Your task to perform on an android device: empty trash in google photos Image 0: 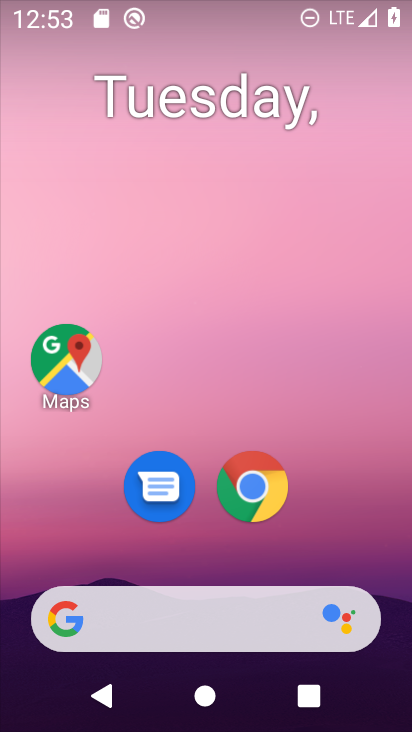
Step 0: drag from (208, 564) to (244, 186)
Your task to perform on an android device: empty trash in google photos Image 1: 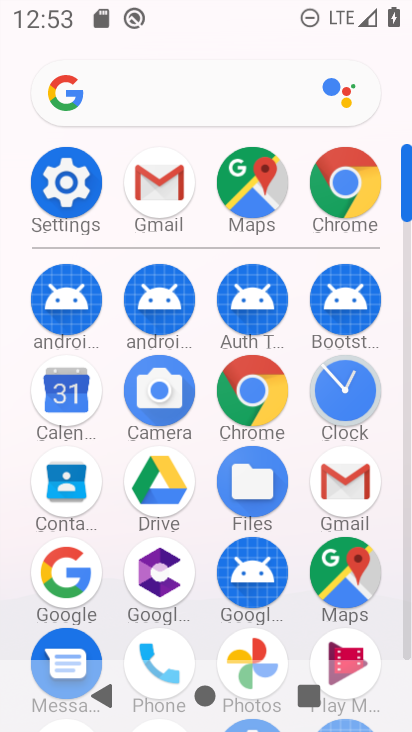
Step 1: drag from (217, 266) to (212, 105)
Your task to perform on an android device: empty trash in google photos Image 2: 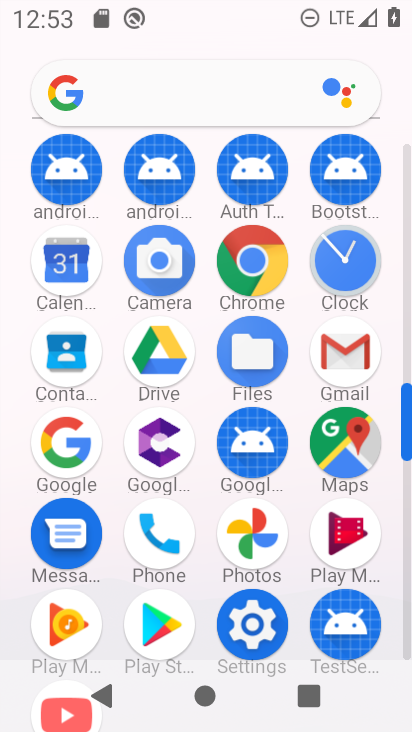
Step 2: click (256, 553)
Your task to perform on an android device: empty trash in google photos Image 3: 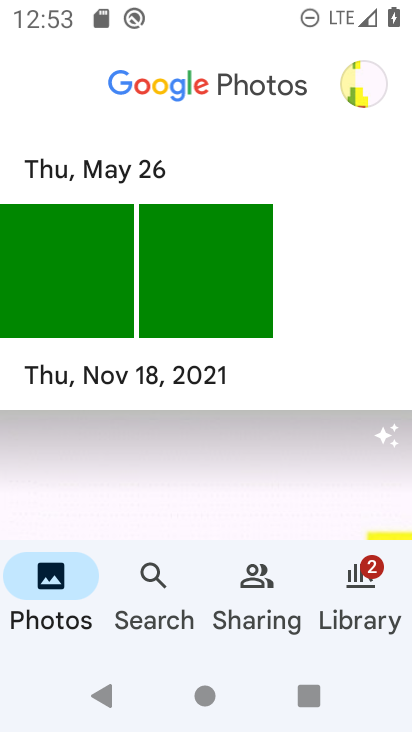
Step 3: click (343, 613)
Your task to perform on an android device: empty trash in google photos Image 4: 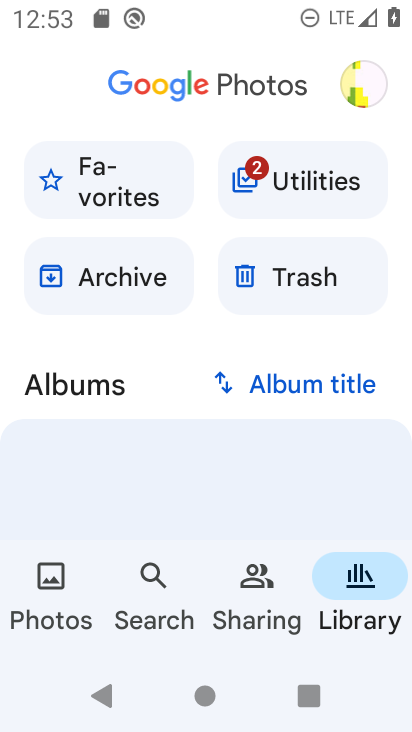
Step 4: click (256, 298)
Your task to perform on an android device: empty trash in google photos Image 5: 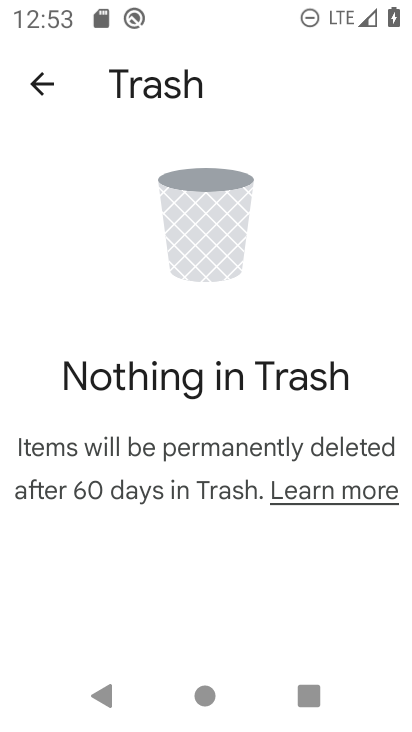
Step 5: task complete